Your task to perform on an android device: check data usage Image 0: 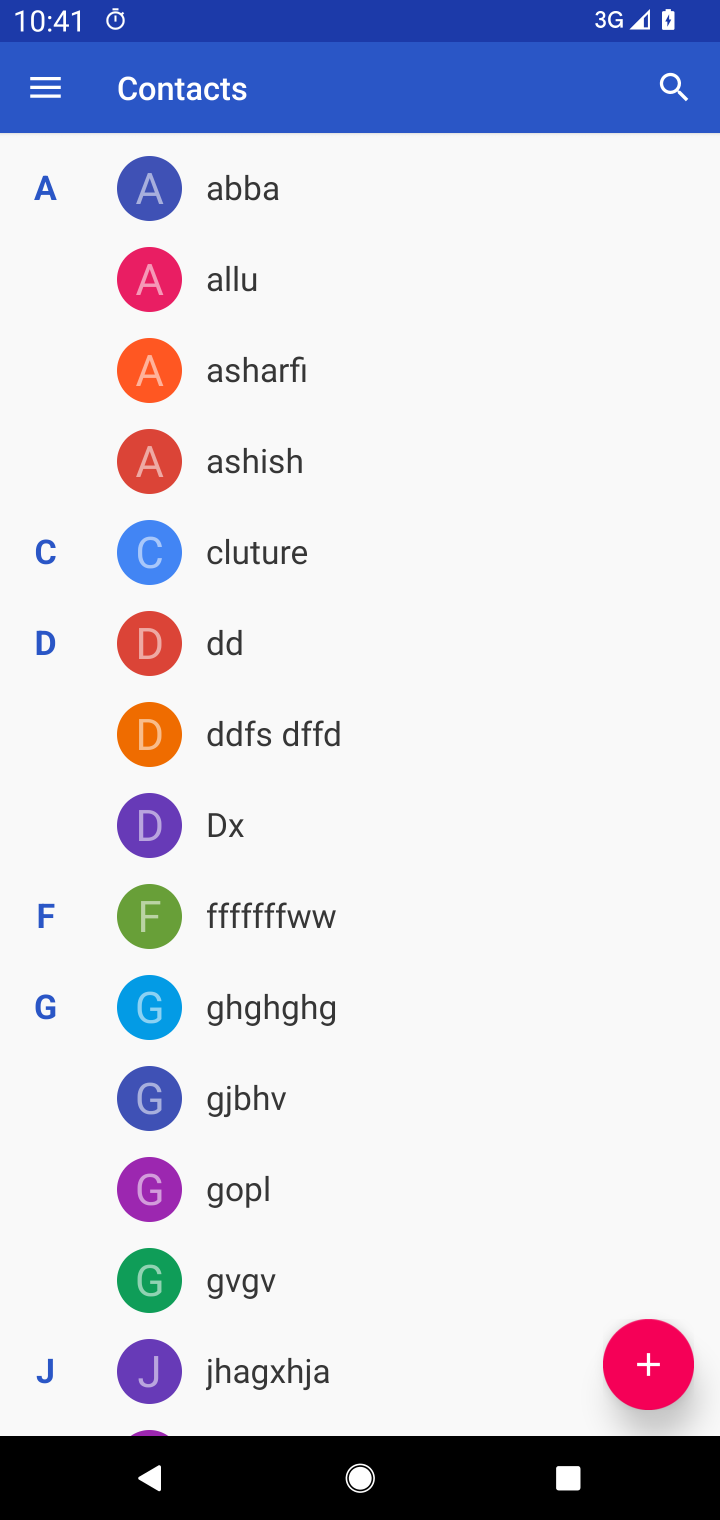
Step 0: press home button
Your task to perform on an android device: check data usage Image 1: 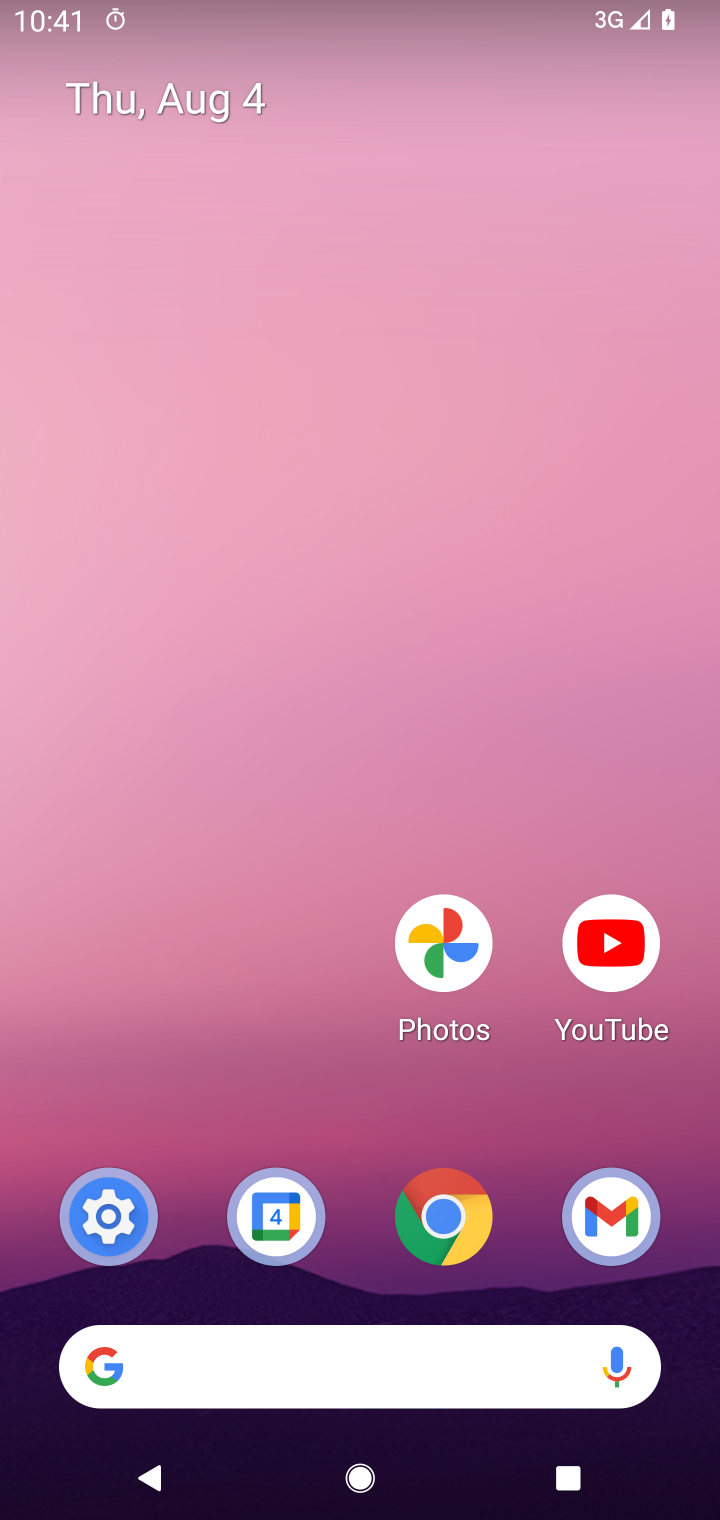
Step 1: drag from (346, 1070) to (347, 36)
Your task to perform on an android device: check data usage Image 2: 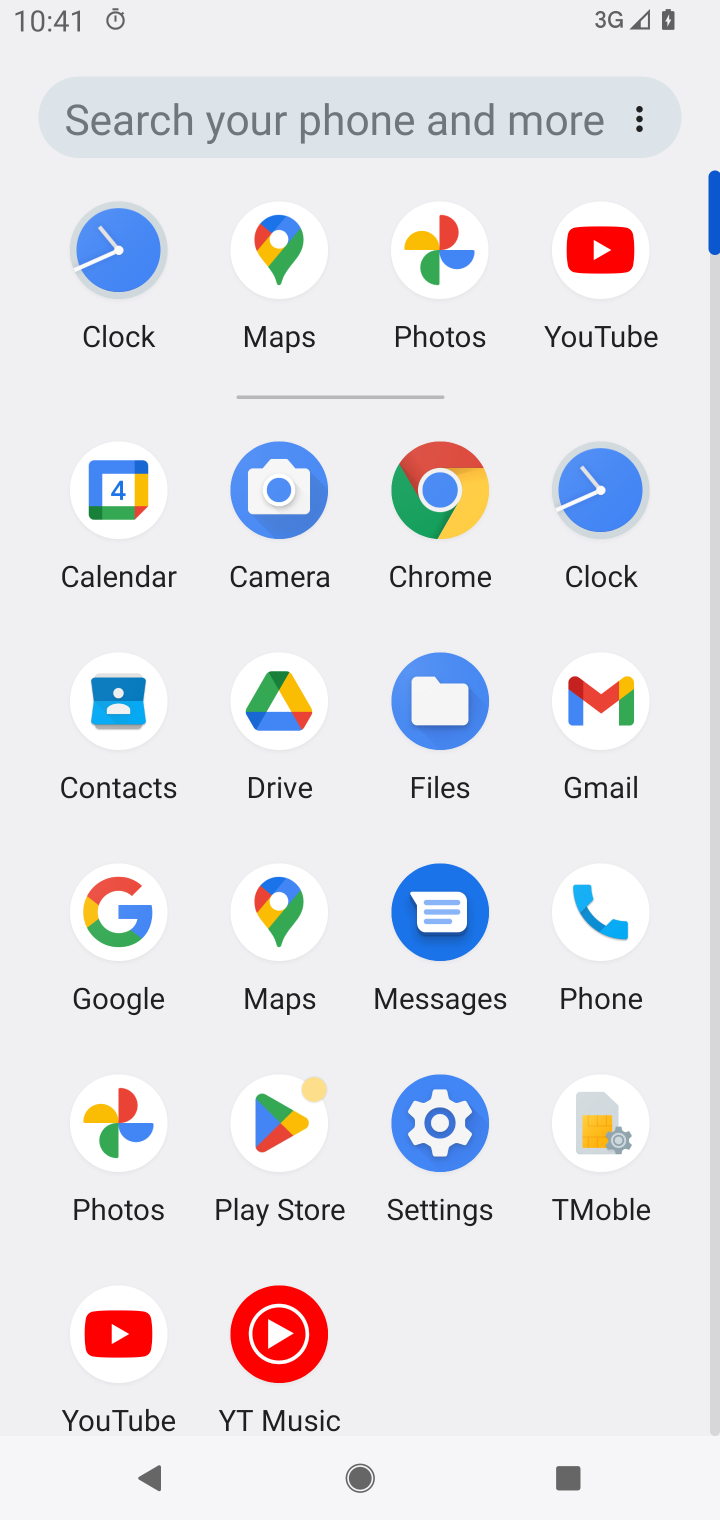
Step 2: click (438, 1143)
Your task to perform on an android device: check data usage Image 3: 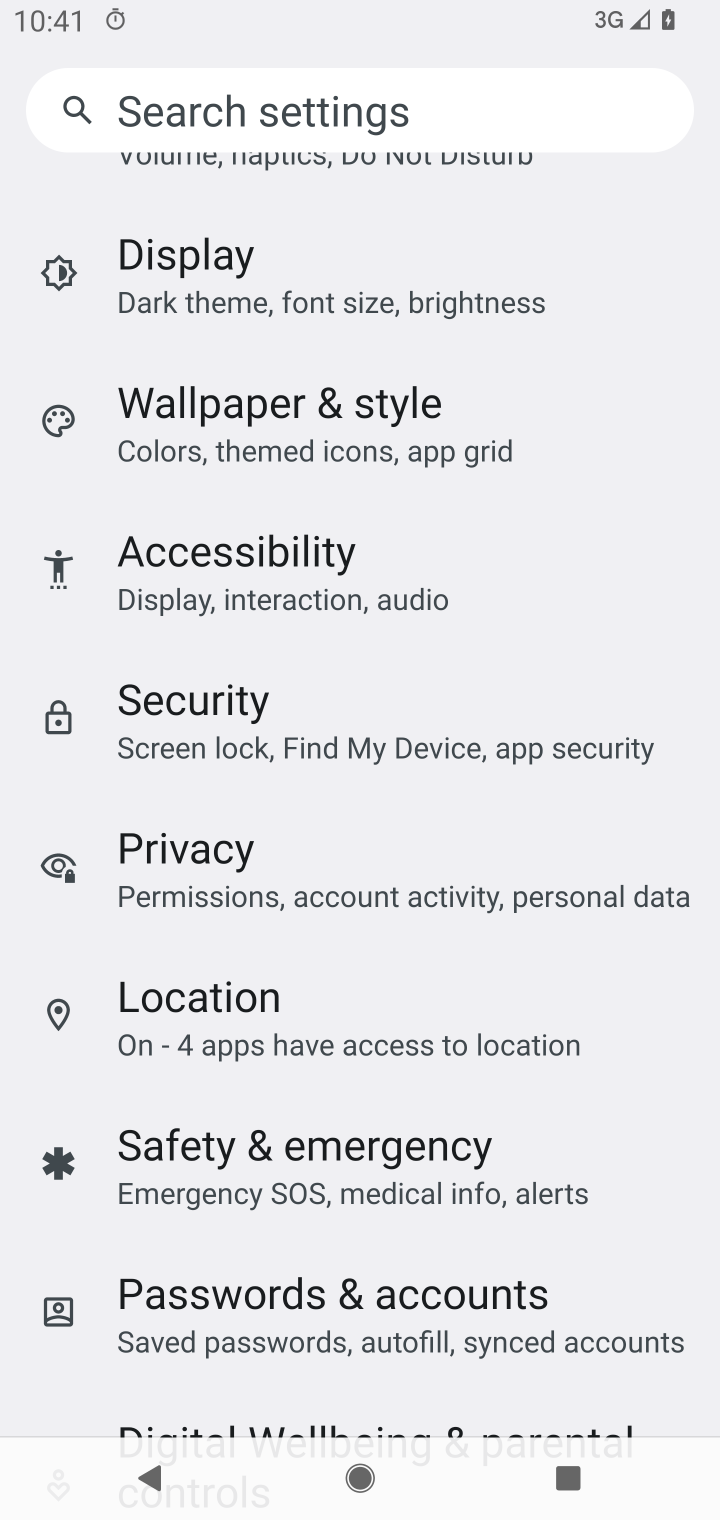
Step 3: drag from (224, 357) to (231, 1181)
Your task to perform on an android device: check data usage Image 4: 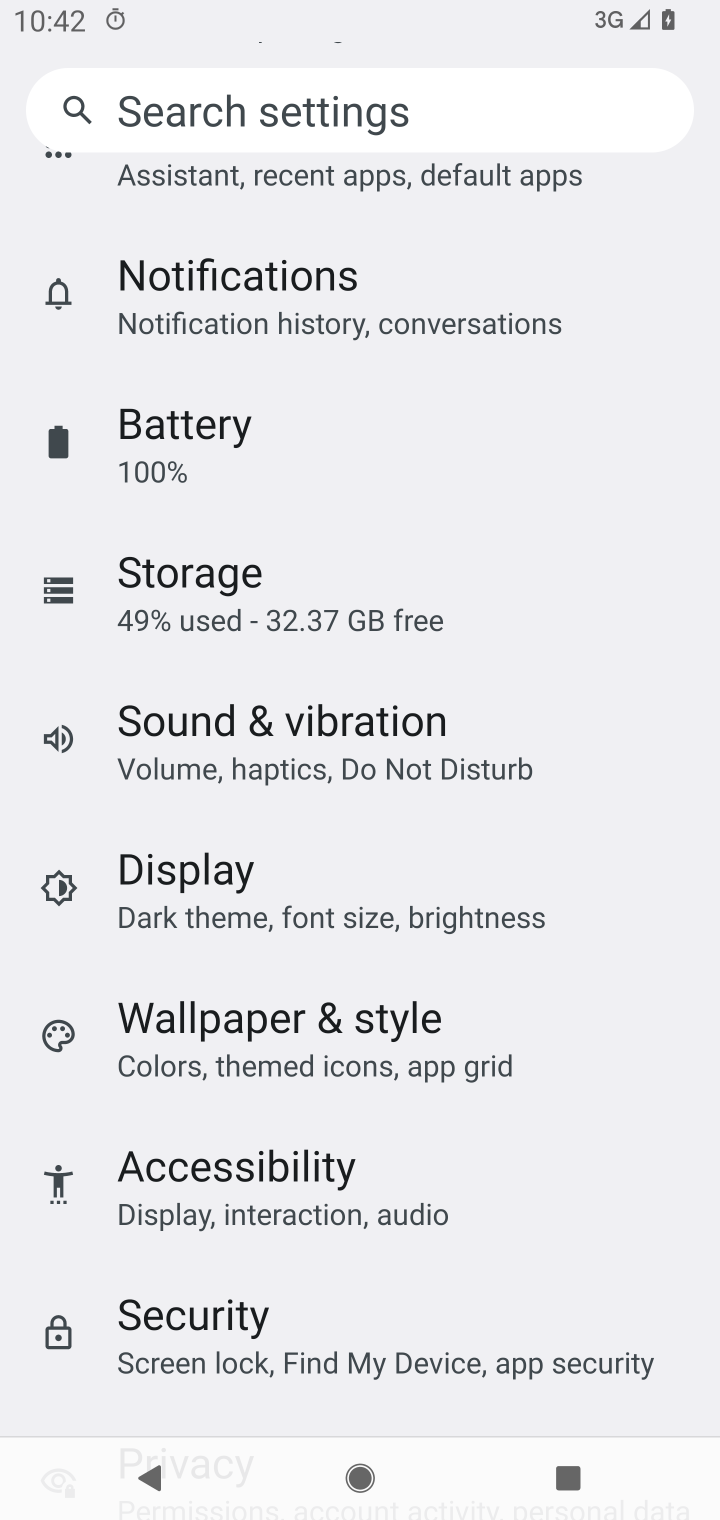
Step 4: drag from (248, 348) to (278, 1185)
Your task to perform on an android device: check data usage Image 5: 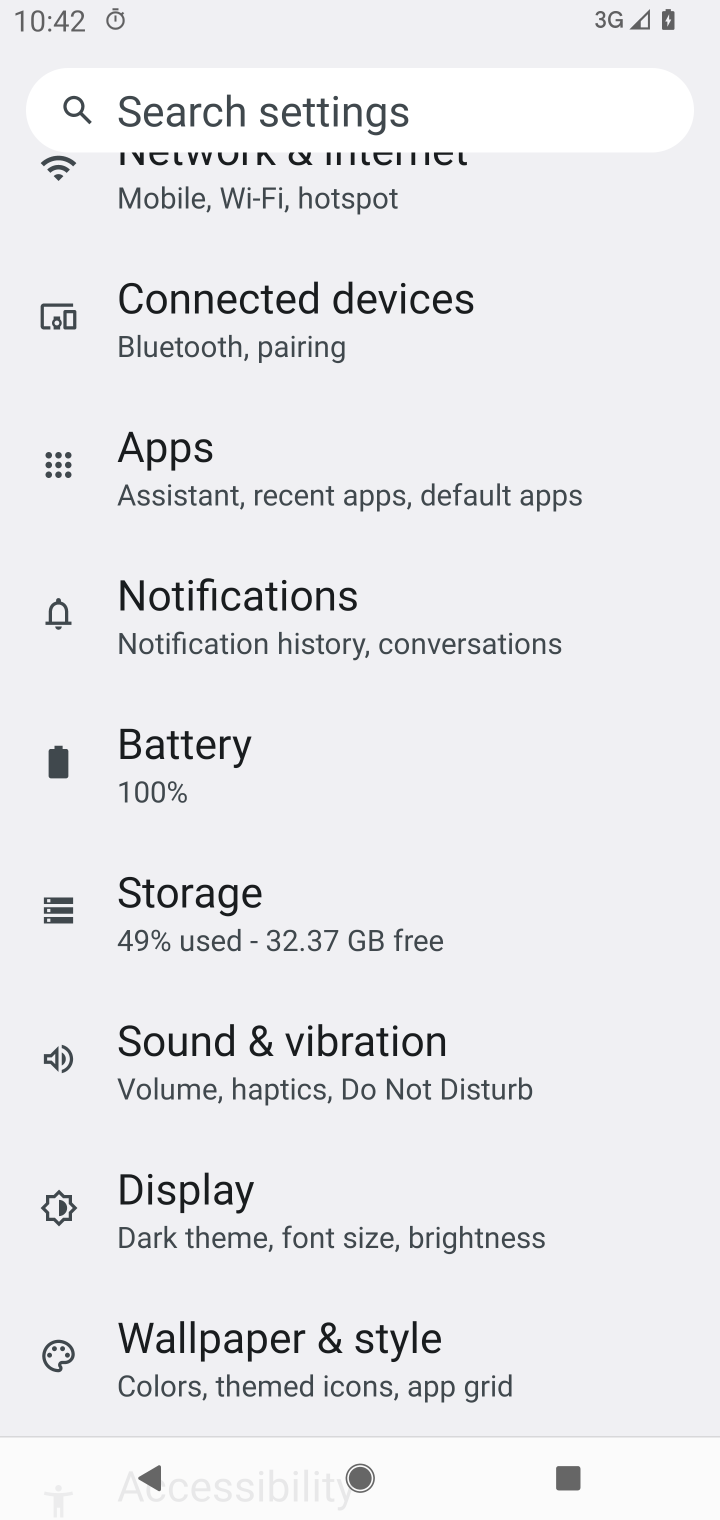
Step 5: drag from (237, 260) to (300, 1202)
Your task to perform on an android device: check data usage Image 6: 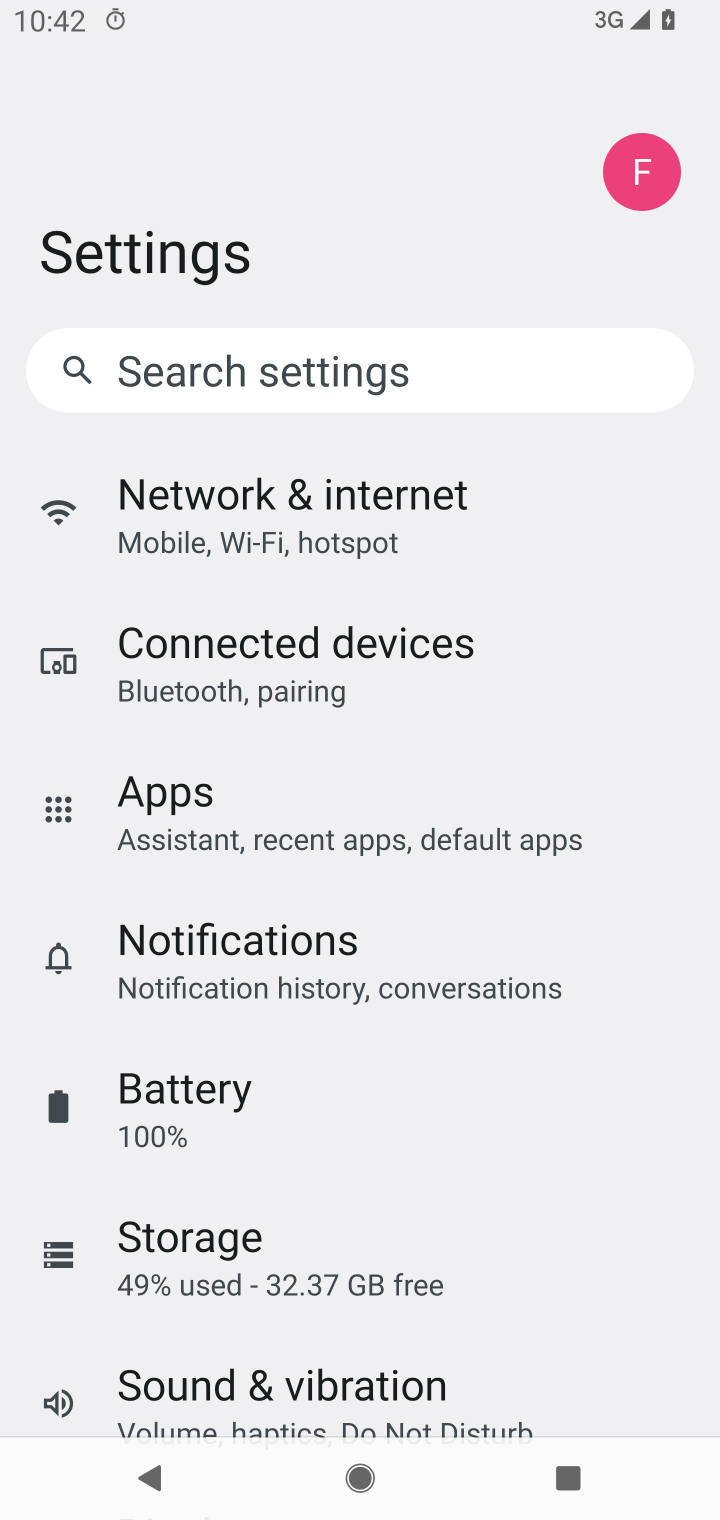
Step 6: click (211, 510)
Your task to perform on an android device: check data usage Image 7: 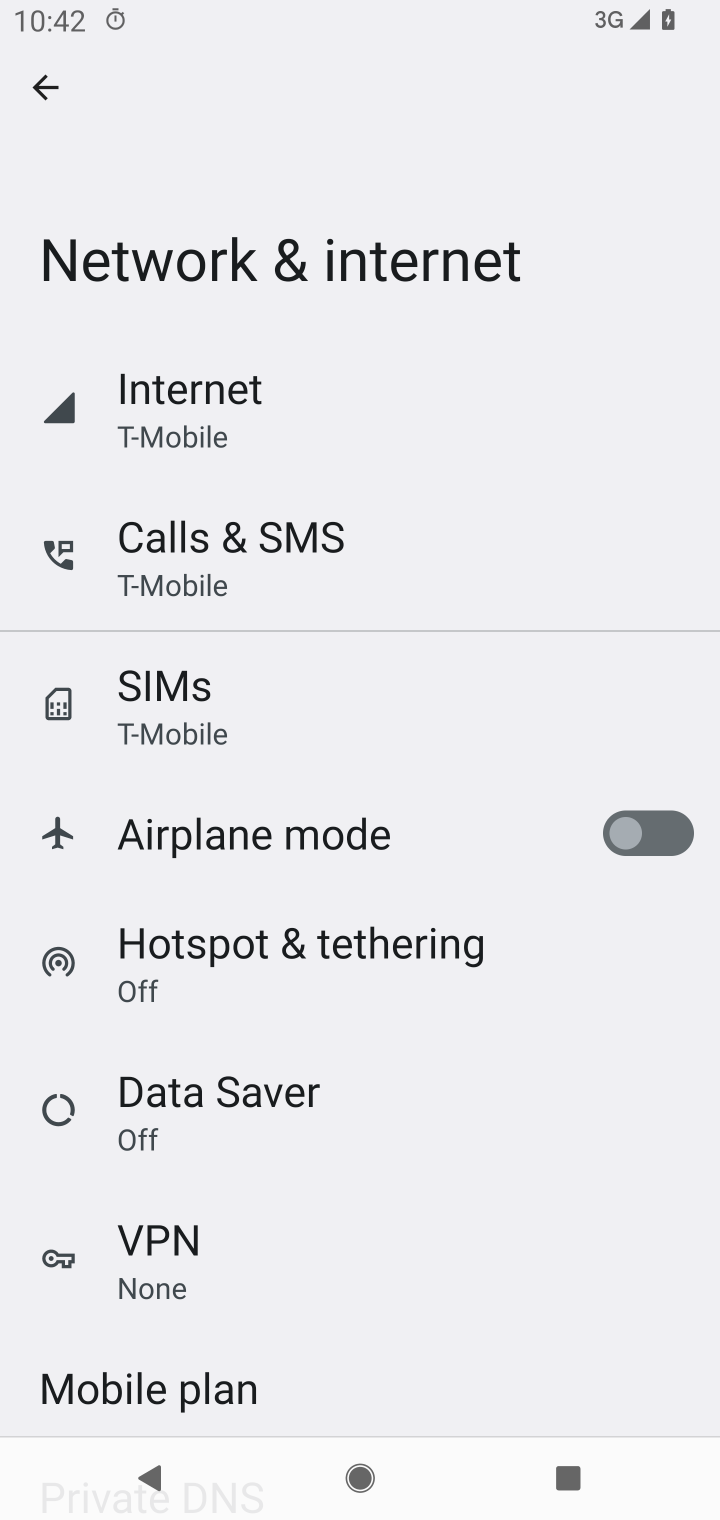
Step 7: drag from (139, 1306) to (235, 433)
Your task to perform on an android device: check data usage Image 8: 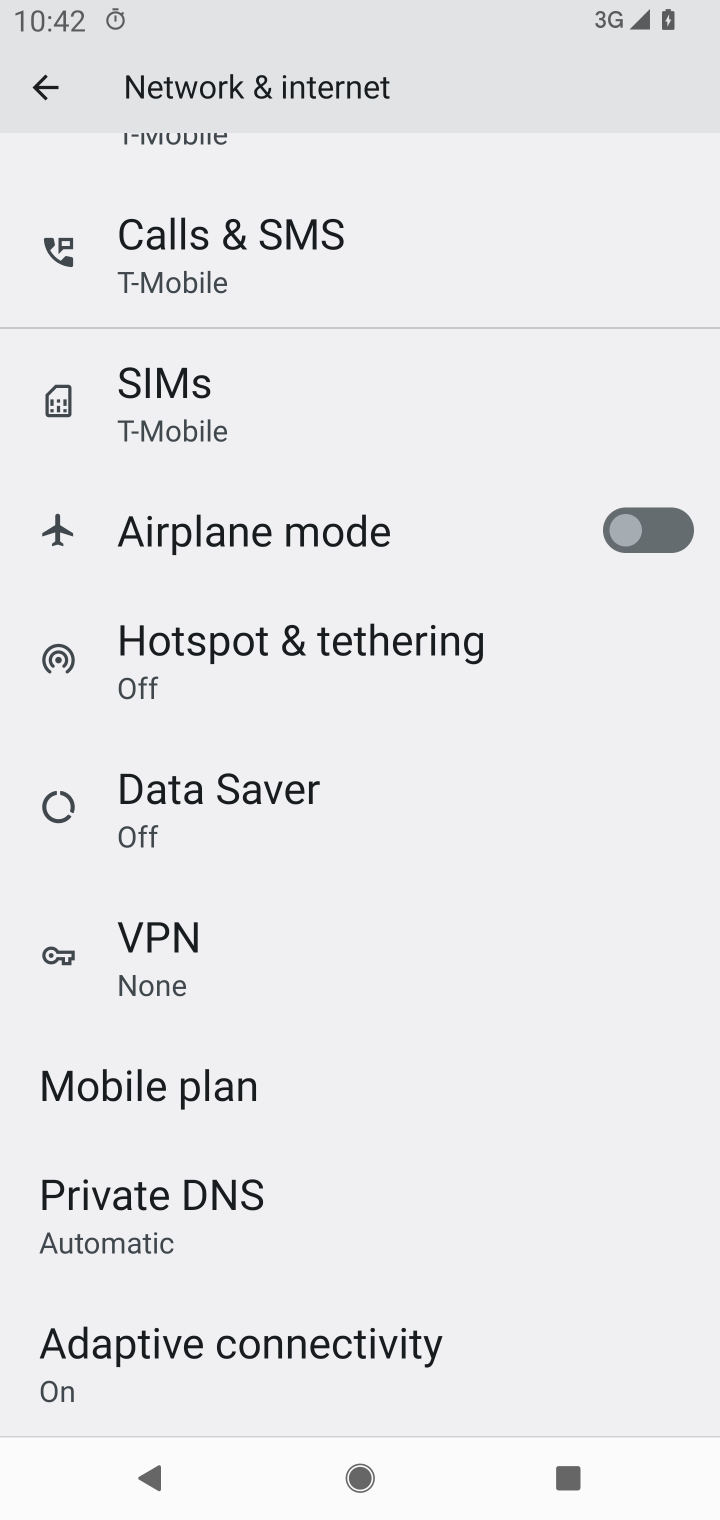
Step 8: drag from (288, 286) to (247, 1293)
Your task to perform on an android device: check data usage Image 9: 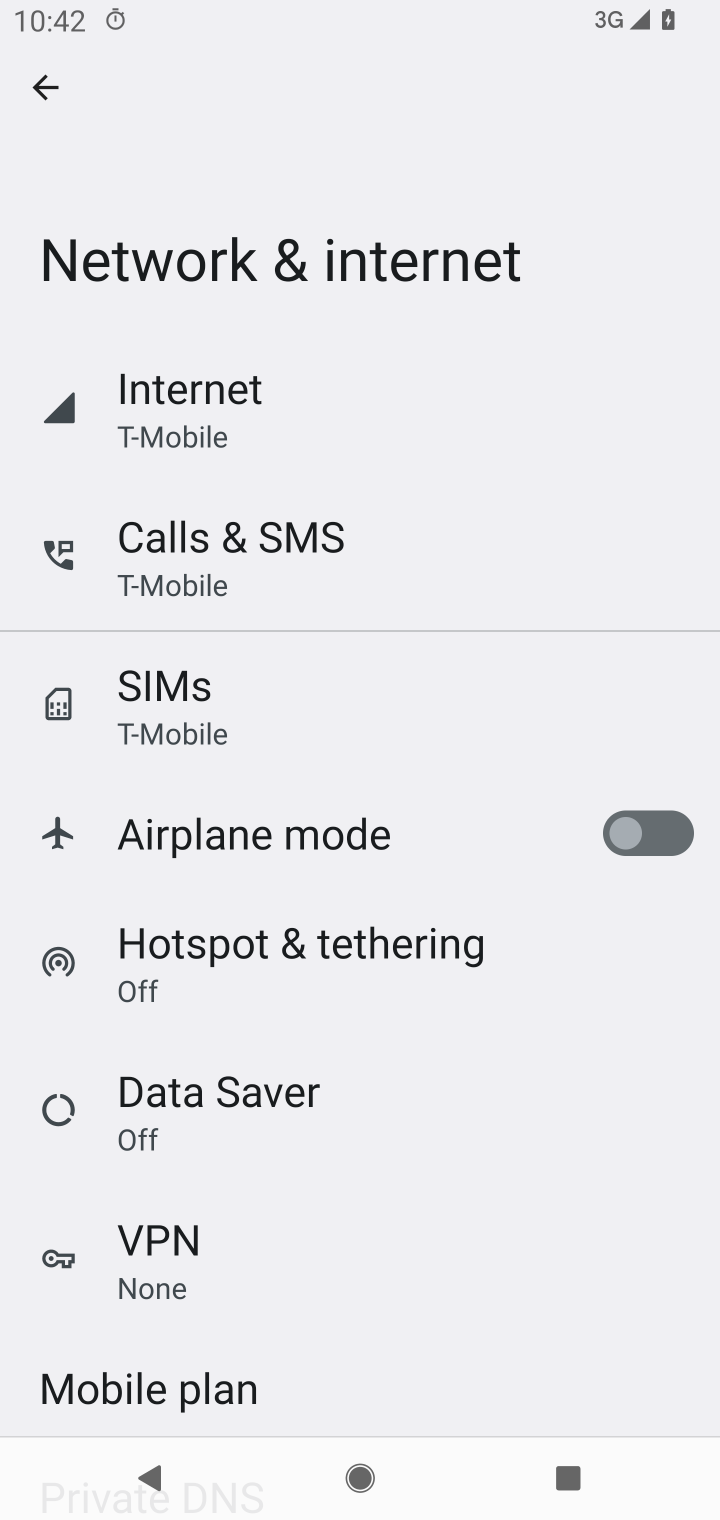
Step 9: click (183, 416)
Your task to perform on an android device: check data usage Image 10: 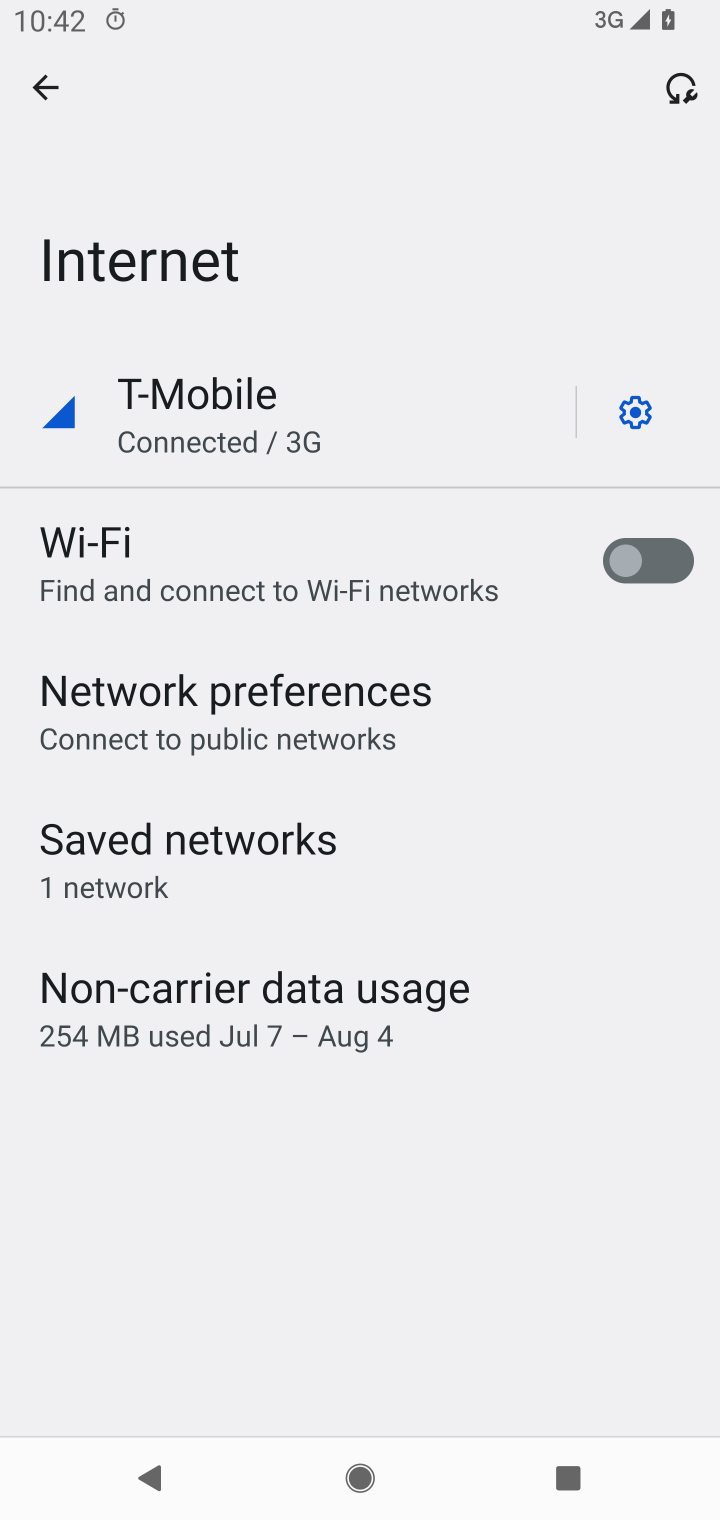
Step 10: click (140, 982)
Your task to perform on an android device: check data usage Image 11: 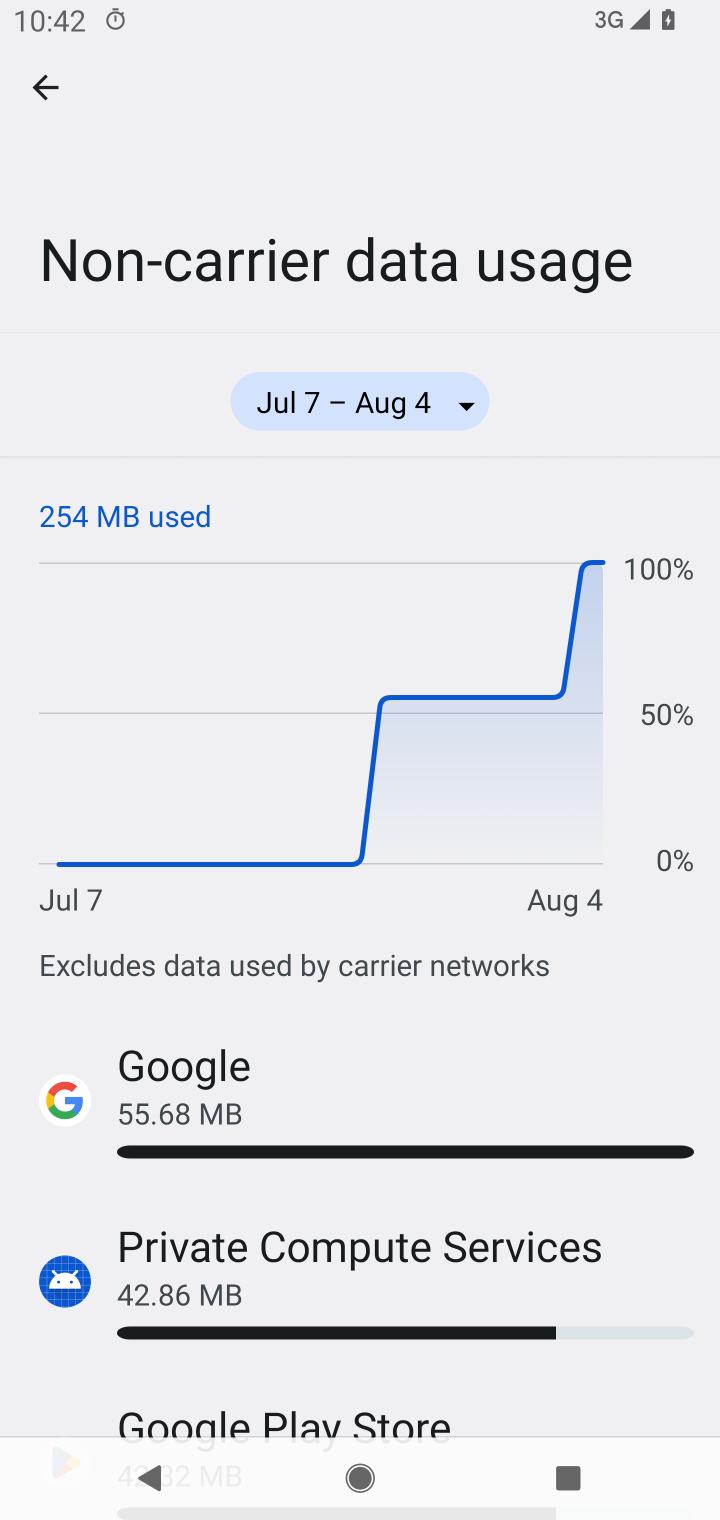
Step 11: task complete